Your task to perform on an android device: see creations saved in the google photos Image 0: 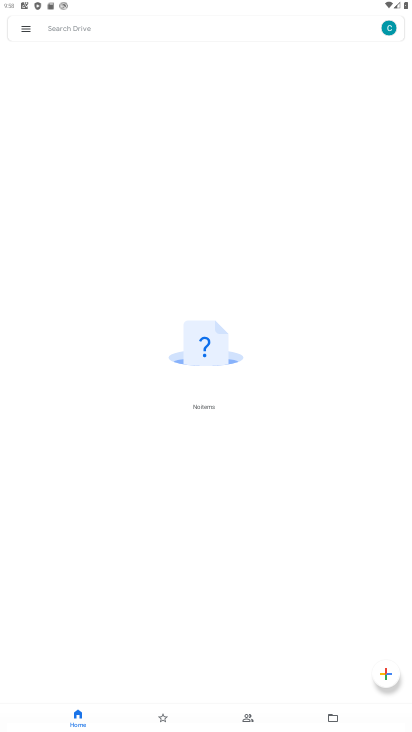
Step 0: press home button
Your task to perform on an android device: see creations saved in the google photos Image 1: 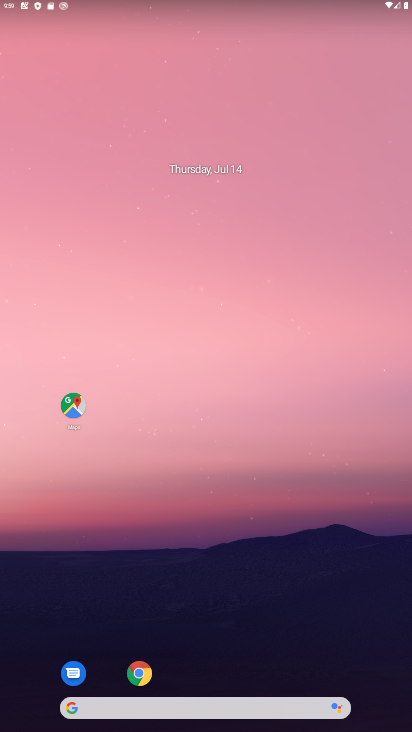
Step 1: drag from (220, 678) to (142, 165)
Your task to perform on an android device: see creations saved in the google photos Image 2: 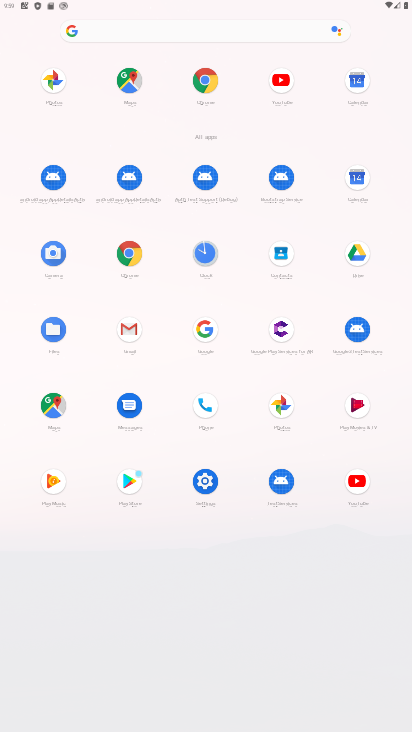
Step 2: click (281, 405)
Your task to perform on an android device: see creations saved in the google photos Image 3: 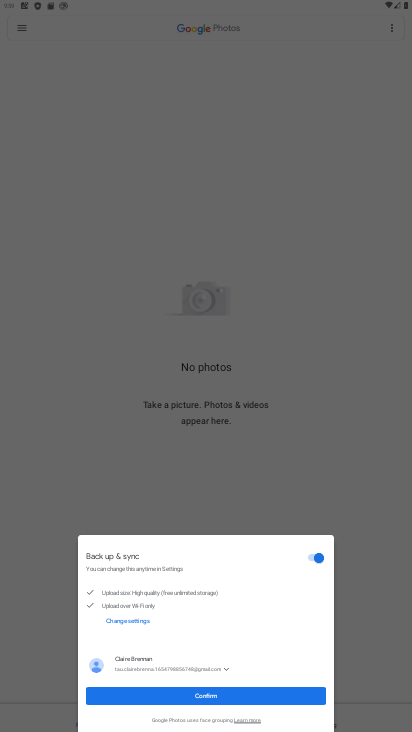
Step 3: click (191, 693)
Your task to perform on an android device: see creations saved in the google photos Image 4: 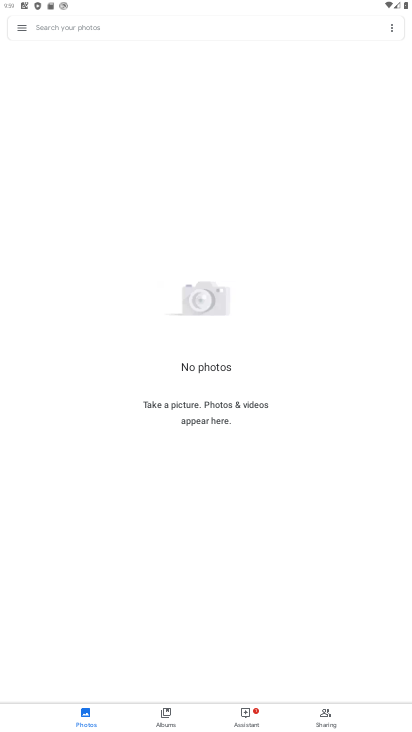
Step 4: click (126, 27)
Your task to perform on an android device: see creations saved in the google photos Image 5: 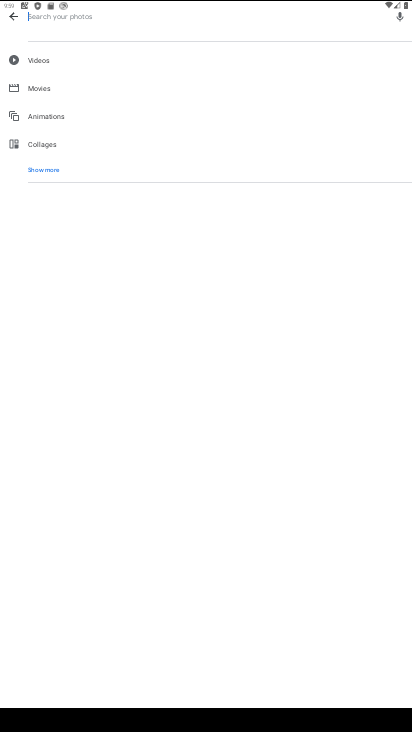
Step 5: click (35, 167)
Your task to perform on an android device: see creations saved in the google photos Image 6: 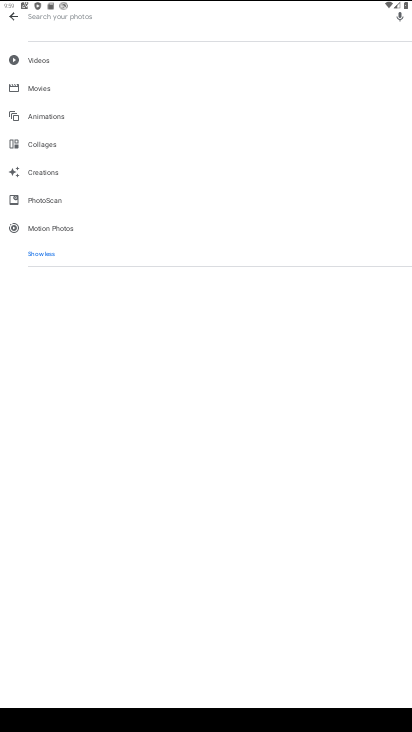
Step 6: click (52, 177)
Your task to perform on an android device: see creations saved in the google photos Image 7: 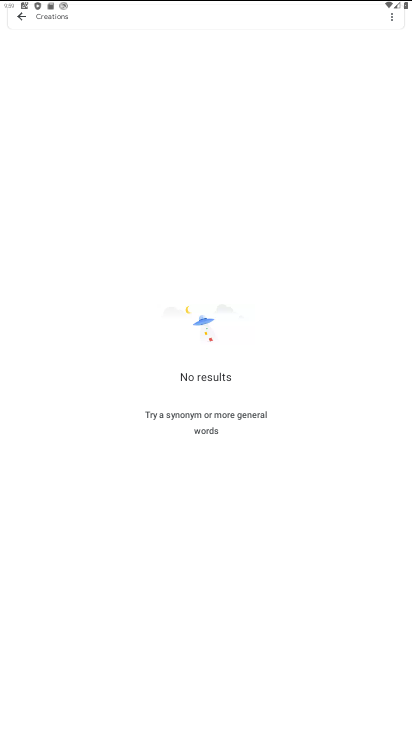
Step 7: task complete